Your task to perform on an android device: Open Google Maps Image 0: 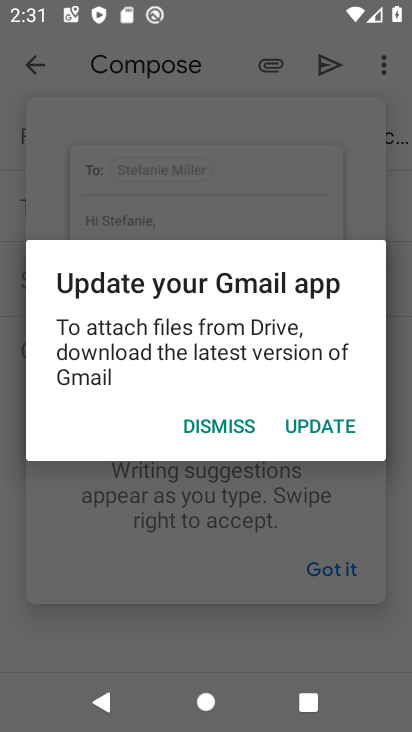
Step 0: click (223, 424)
Your task to perform on an android device: Open Google Maps Image 1: 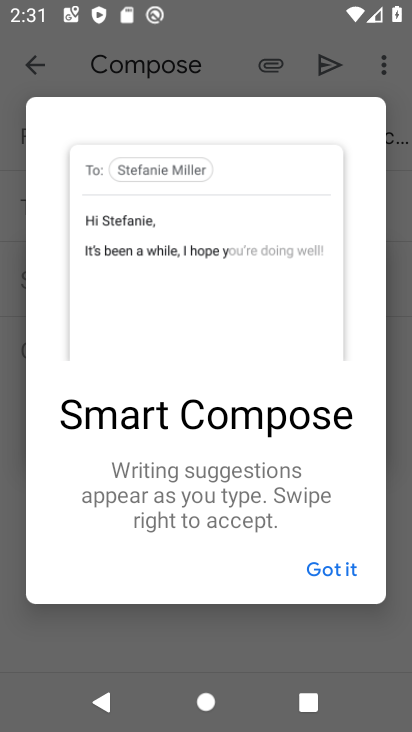
Step 1: press back button
Your task to perform on an android device: Open Google Maps Image 2: 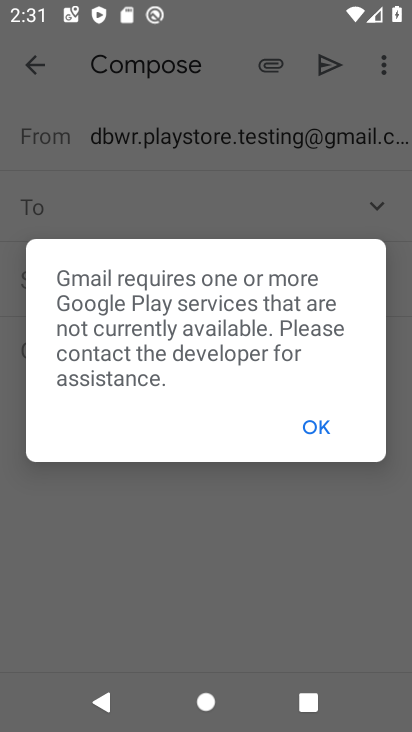
Step 2: click (339, 418)
Your task to perform on an android device: Open Google Maps Image 3: 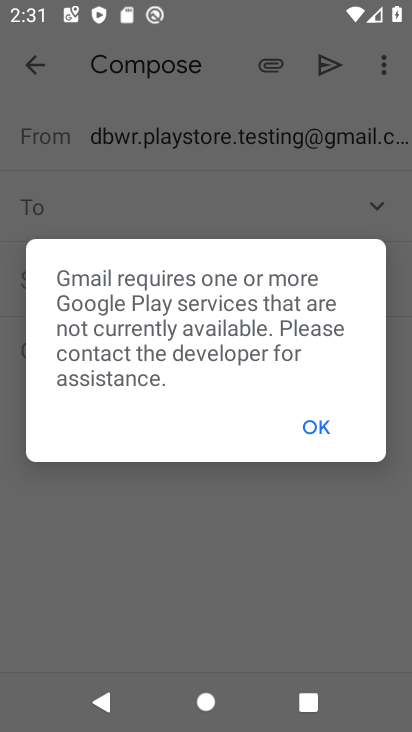
Step 3: click (322, 427)
Your task to perform on an android device: Open Google Maps Image 4: 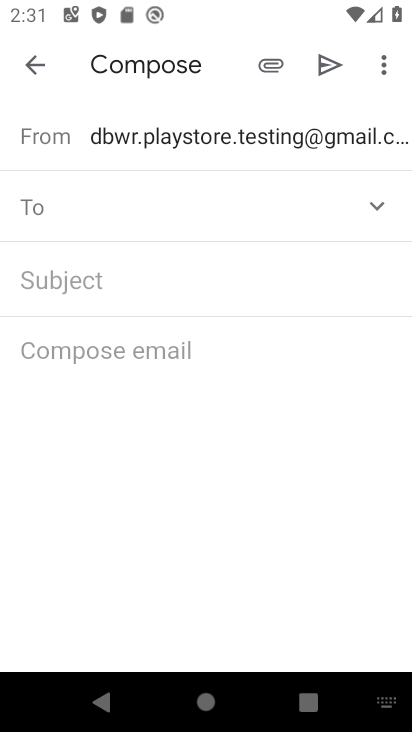
Step 4: click (29, 70)
Your task to perform on an android device: Open Google Maps Image 5: 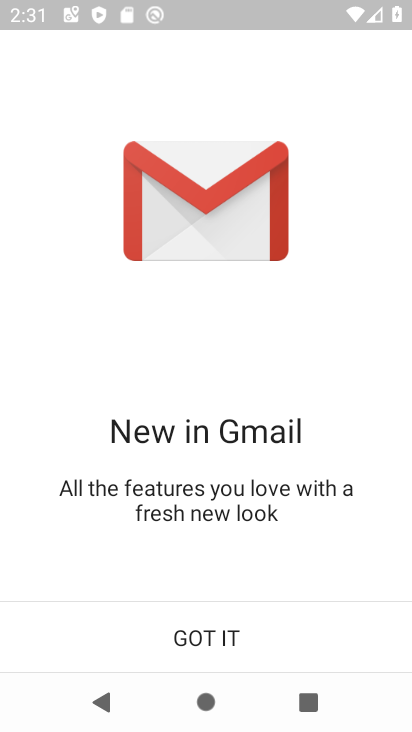
Step 5: press back button
Your task to perform on an android device: Open Google Maps Image 6: 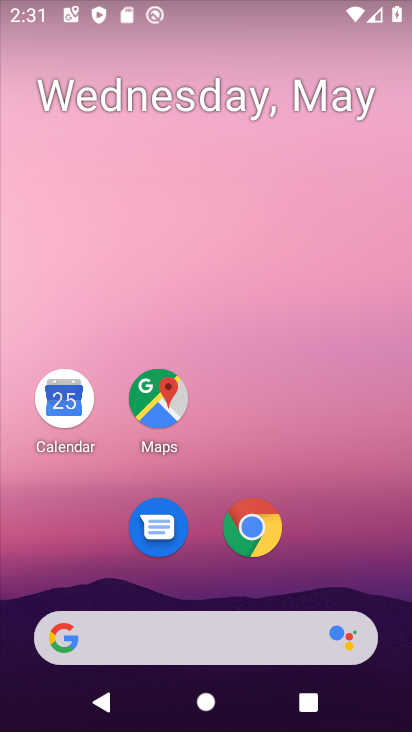
Step 6: drag from (207, 559) to (86, 112)
Your task to perform on an android device: Open Google Maps Image 7: 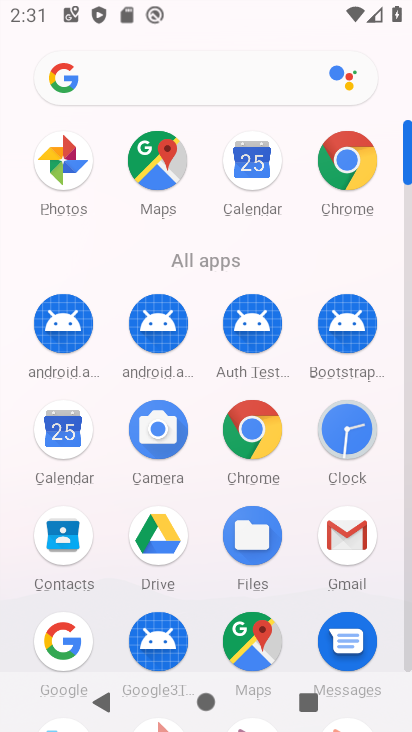
Step 7: click (246, 649)
Your task to perform on an android device: Open Google Maps Image 8: 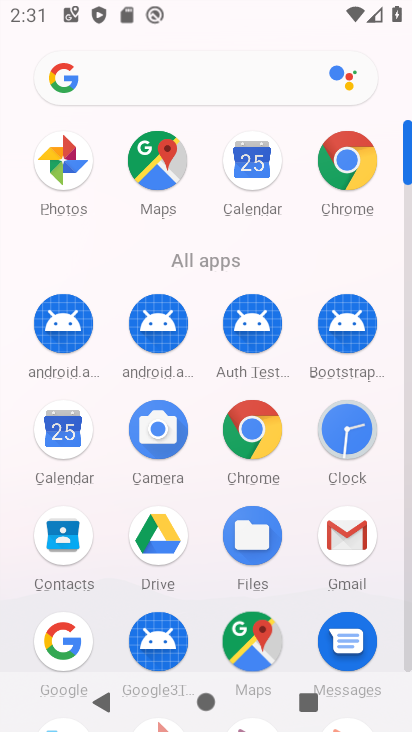
Step 8: click (247, 648)
Your task to perform on an android device: Open Google Maps Image 9: 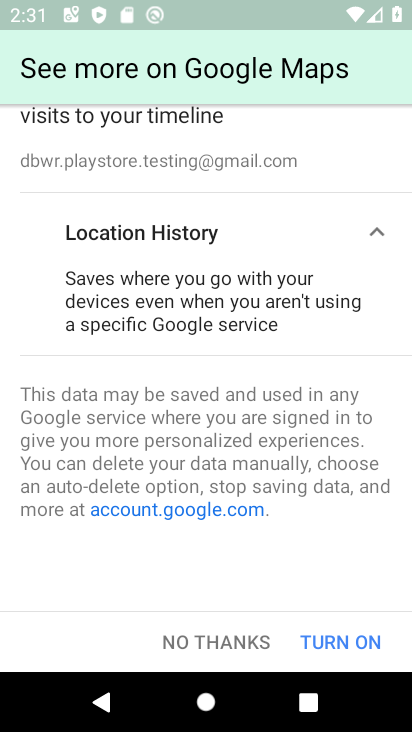
Step 9: task complete